Your task to perform on an android device: Show me popular games on the Play Store Image 0: 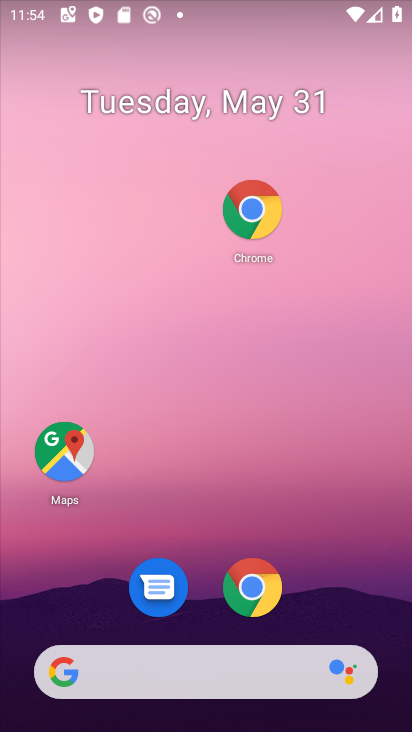
Step 0: drag from (356, 525) to (392, 91)
Your task to perform on an android device: Show me popular games on the Play Store Image 1: 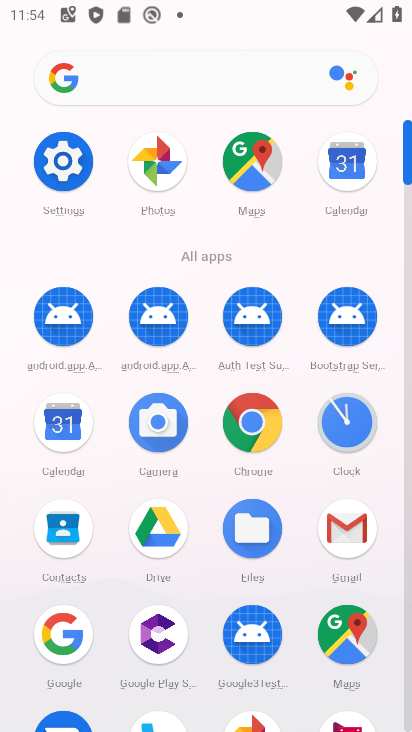
Step 1: drag from (204, 603) to (215, 440)
Your task to perform on an android device: Show me popular games on the Play Store Image 2: 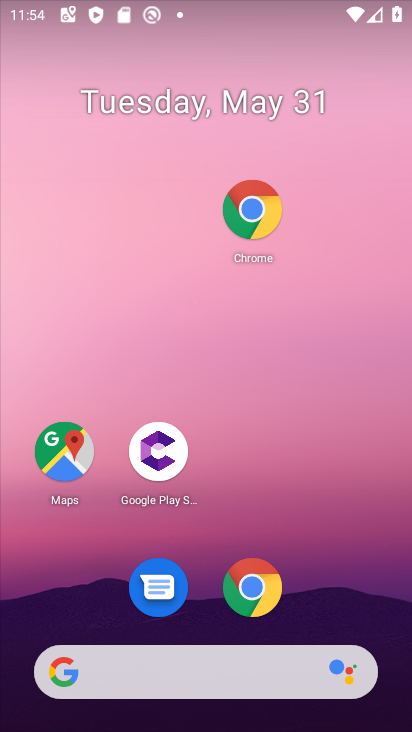
Step 2: drag from (251, 501) to (276, 12)
Your task to perform on an android device: Show me popular games on the Play Store Image 3: 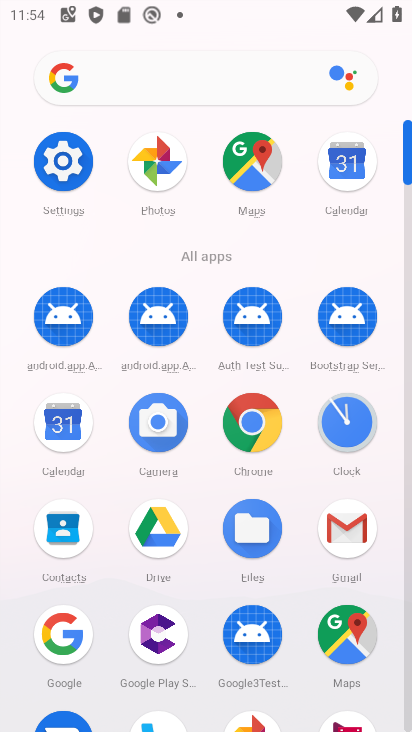
Step 3: drag from (201, 270) to (235, 12)
Your task to perform on an android device: Show me popular games on the Play Store Image 4: 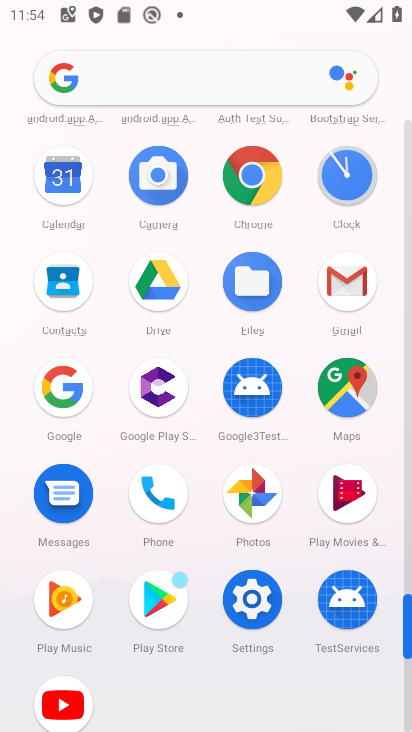
Step 4: click (161, 589)
Your task to perform on an android device: Show me popular games on the Play Store Image 5: 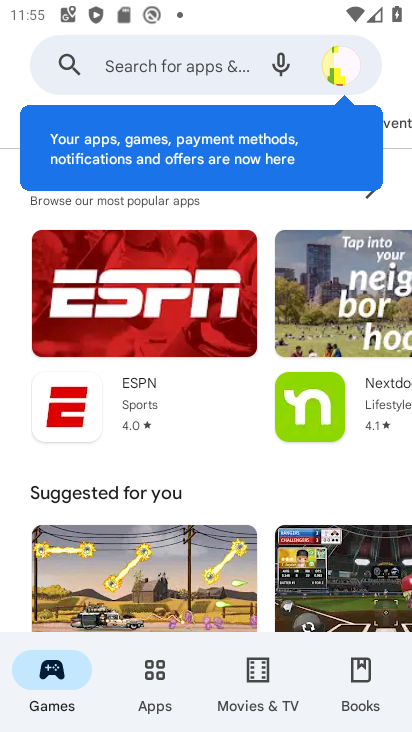
Step 5: drag from (188, 513) to (201, 552)
Your task to perform on an android device: Show me popular games on the Play Store Image 6: 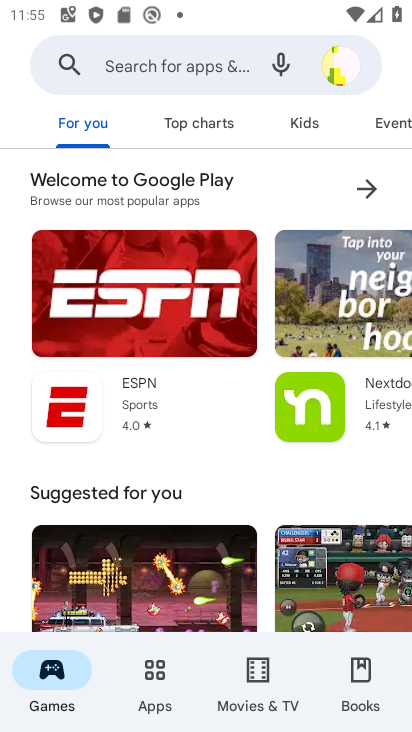
Step 6: click (199, 118)
Your task to perform on an android device: Show me popular games on the Play Store Image 7: 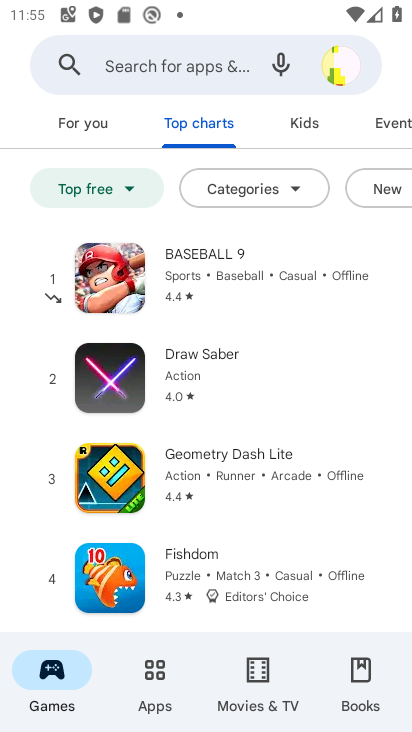
Step 7: task complete